Your task to perform on an android device: Go to network settings Image 0: 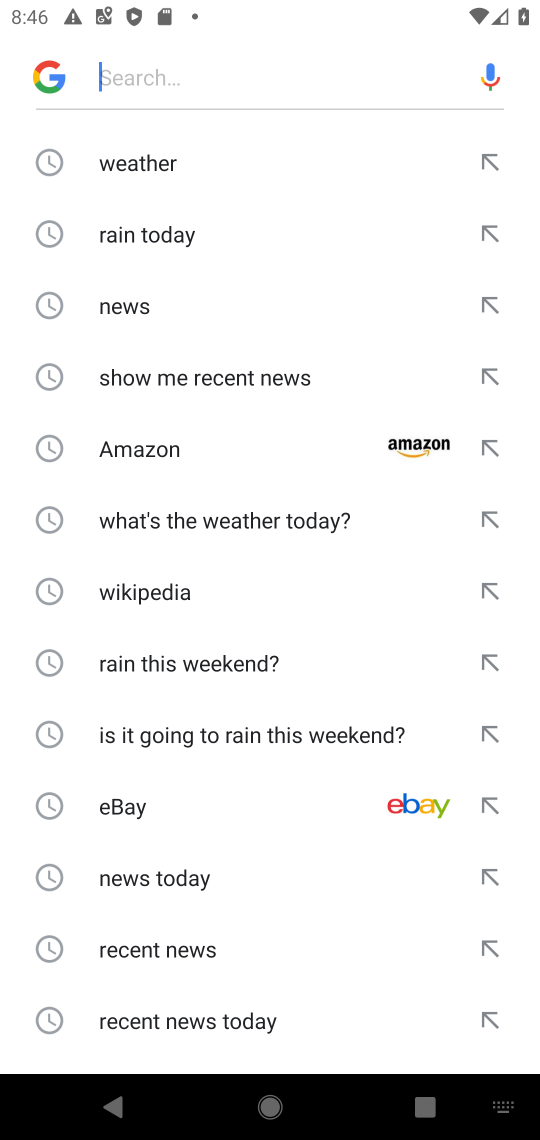
Step 0: press home button
Your task to perform on an android device: Go to network settings Image 1: 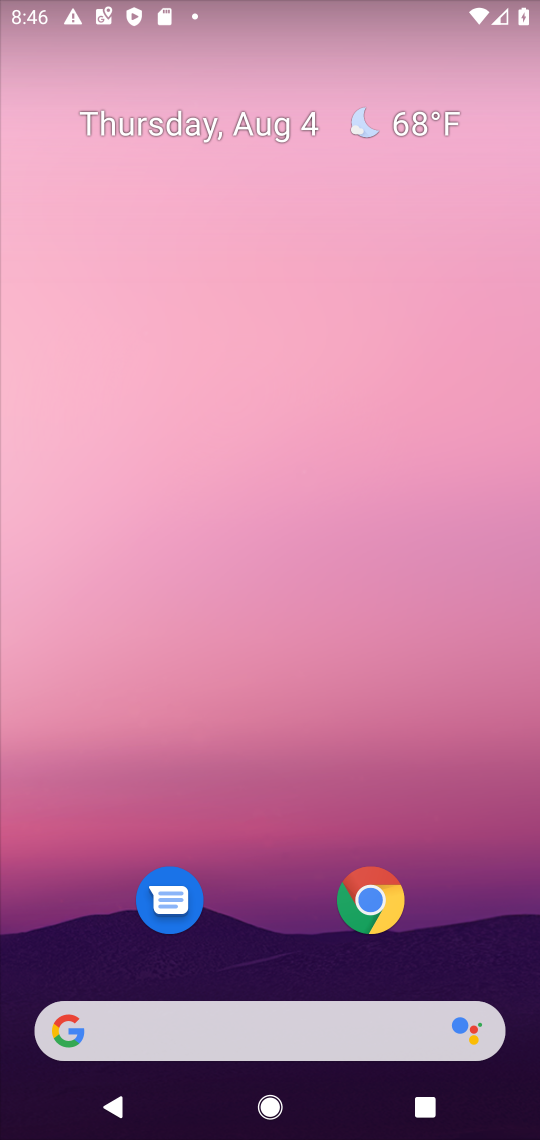
Step 1: drag from (274, 939) to (274, 300)
Your task to perform on an android device: Go to network settings Image 2: 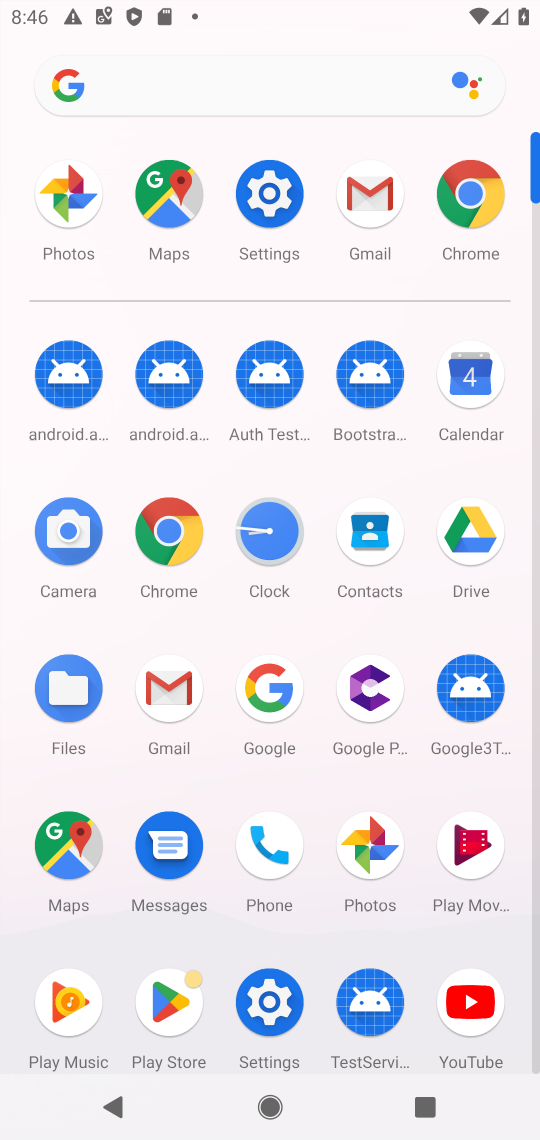
Step 2: click (267, 193)
Your task to perform on an android device: Go to network settings Image 3: 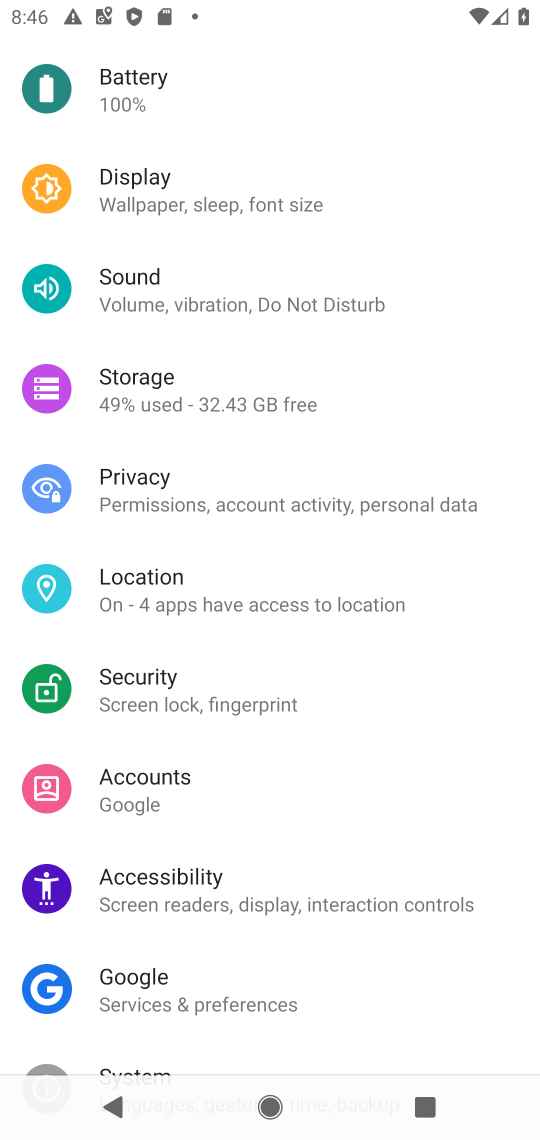
Step 3: drag from (272, 427) to (225, 840)
Your task to perform on an android device: Go to network settings Image 4: 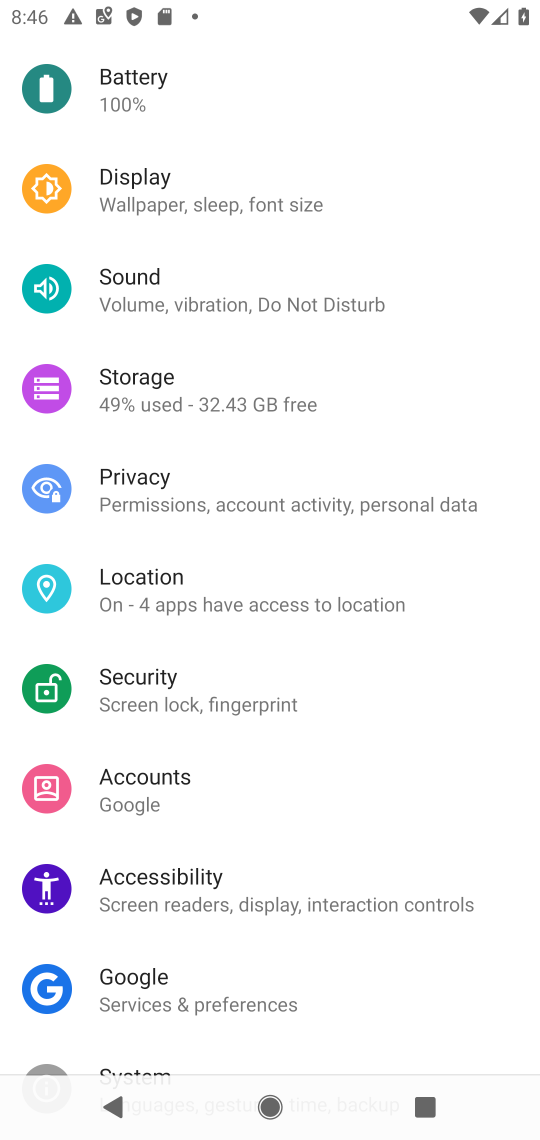
Step 4: drag from (251, 252) to (207, 852)
Your task to perform on an android device: Go to network settings Image 5: 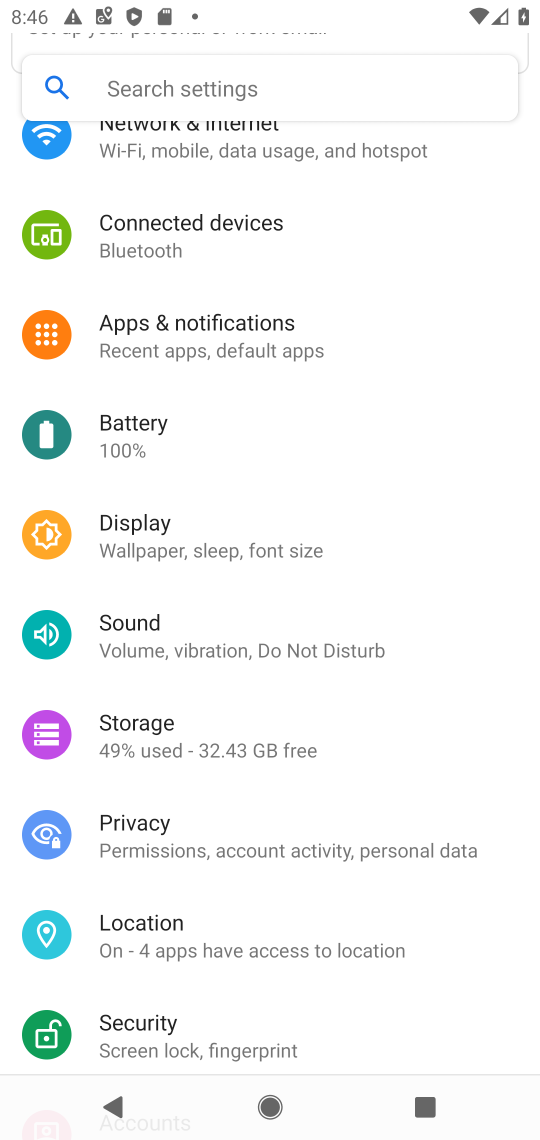
Step 5: click (227, 148)
Your task to perform on an android device: Go to network settings Image 6: 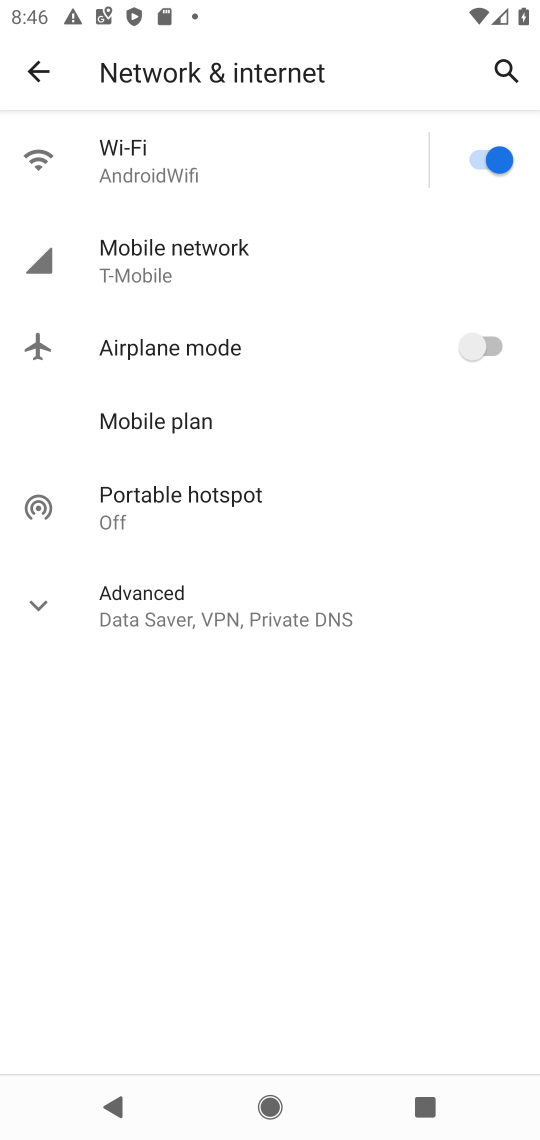
Step 6: task complete